Your task to perform on an android device: Go to accessibility settings Image 0: 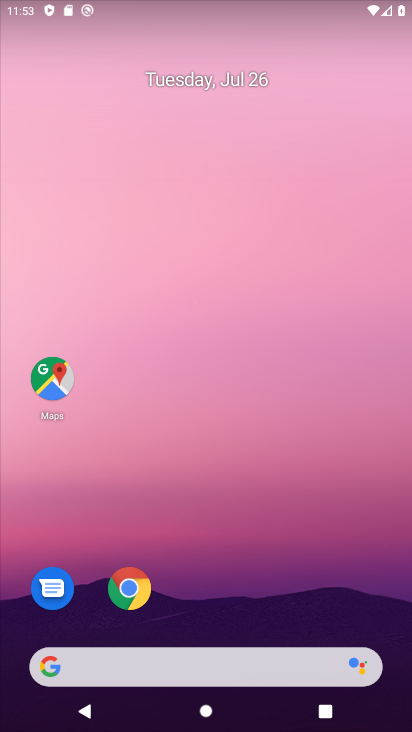
Step 0: drag from (34, 690) to (252, 66)
Your task to perform on an android device: Go to accessibility settings Image 1: 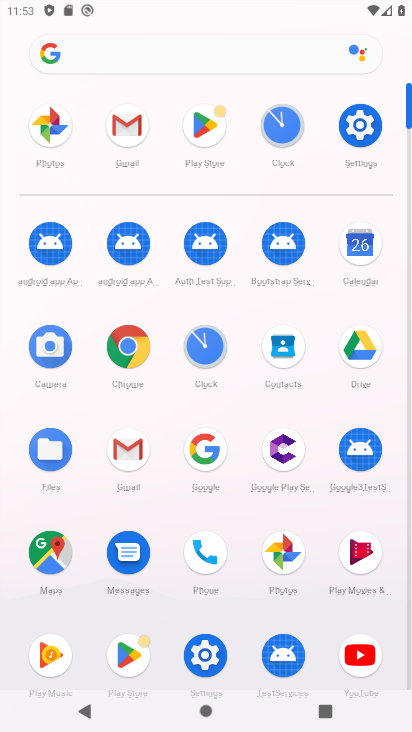
Step 1: click (186, 645)
Your task to perform on an android device: Go to accessibility settings Image 2: 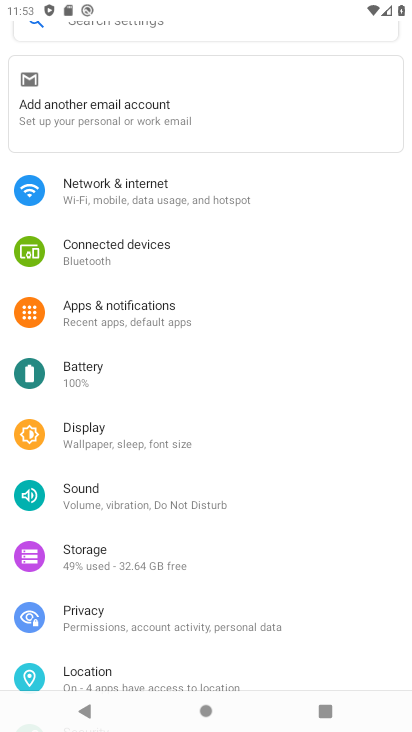
Step 2: drag from (339, 620) to (338, 241)
Your task to perform on an android device: Go to accessibility settings Image 3: 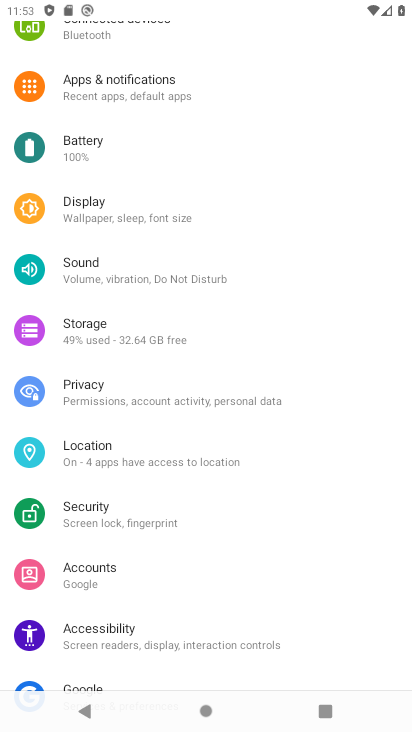
Step 3: click (162, 633)
Your task to perform on an android device: Go to accessibility settings Image 4: 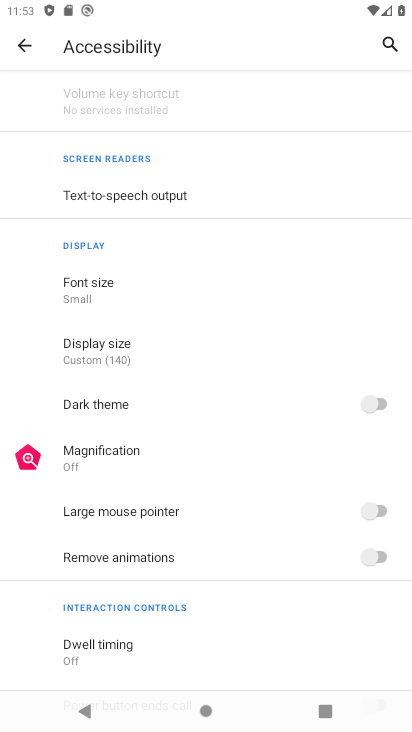
Step 4: task complete